Your task to perform on an android device: turn on notifications settings in the gmail app Image 0: 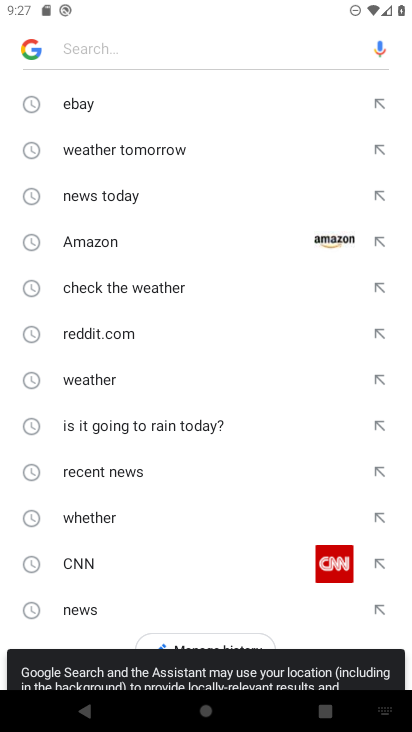
Step 0: press home button
Your task to perform on an android device: turn on notifications settings in the gmail app Image 1: 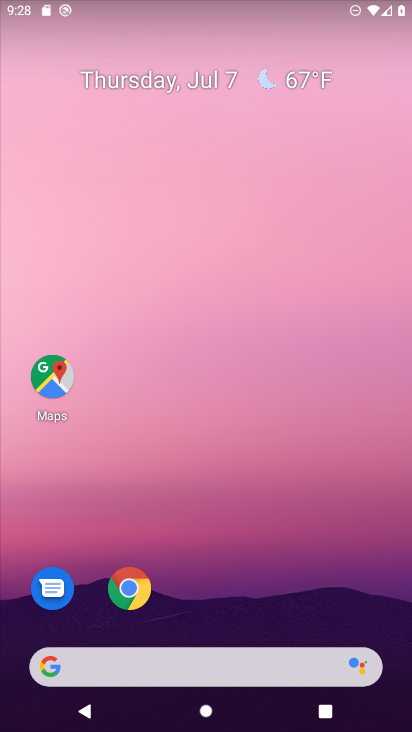
Step 1: drag from (220, 608) to (241, 6)
Your task to perform on an android device: turn on notifications settings in the gmail app Image 2: 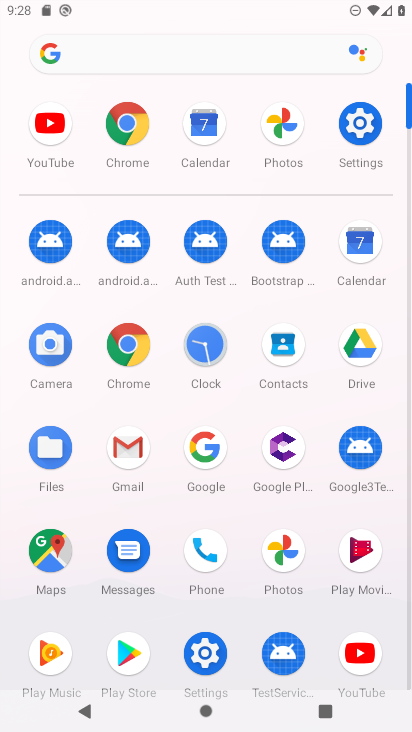
Step 2: click (132, 448)
Your task to perform on an android device: turn on notifications settings in the gmail app Image 3: 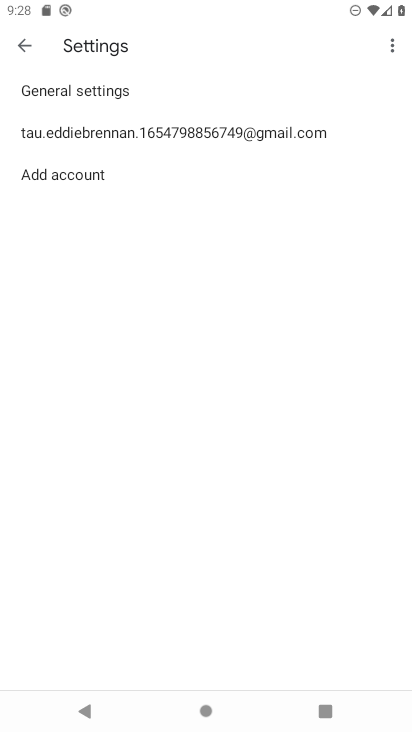
Step 3: click (155, 127)
Your task to perform on an android device: turn on notifications settings in the gmail app Image 4: 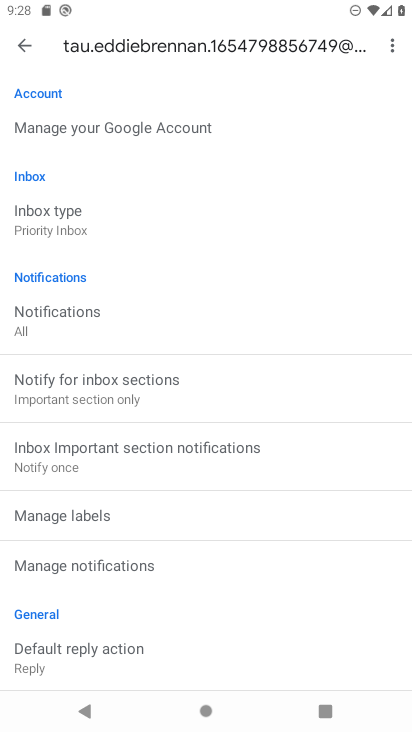
Step 4: click (134, 559)
Your task to perform on an android device: turn on notifications settings in the gmail app Image 5: 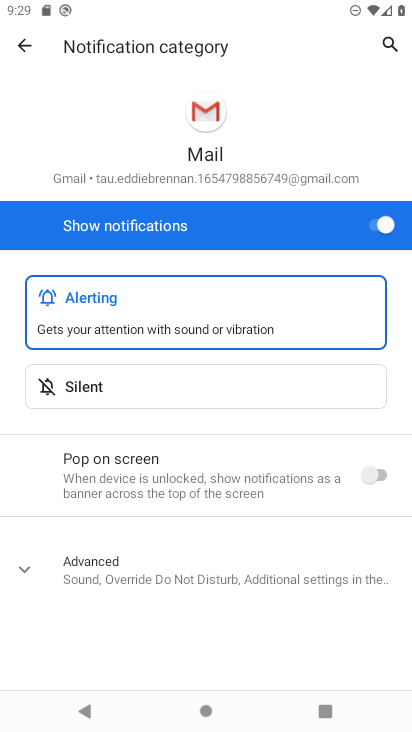
Step 5: task complete